Your task to perform on an android device: Go to Wikipedia Image 0: 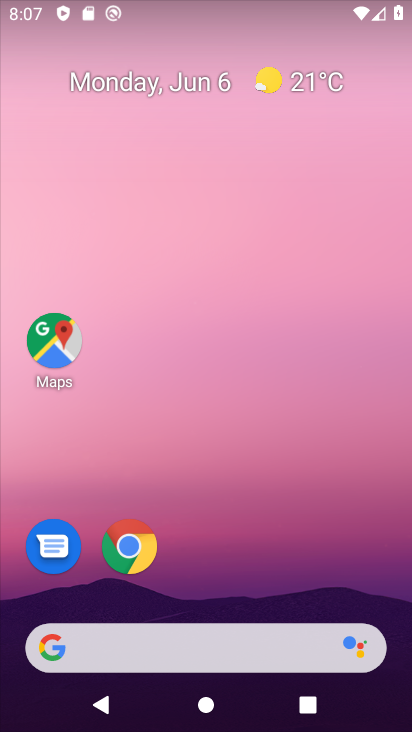
Step 0: drag from (332, 508) to (371, 0)
Your task to perform on an android device: Go to Wikipedia Image 1: 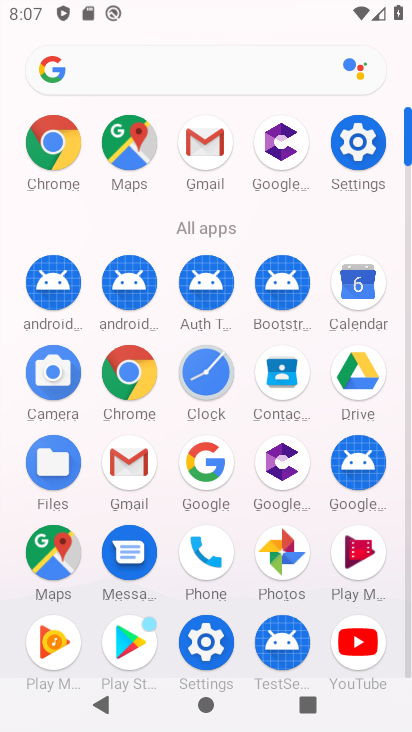
Step 1: click (52, 153)
Your task to perform on an android device: Go to Wikipedia Image 2: 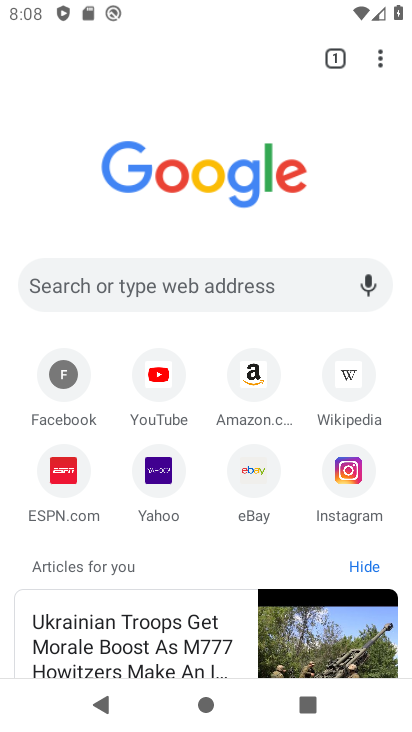
Step 2: click (350, 383)
Your task to perform on an android device: Go to Wikipedia Image 3: 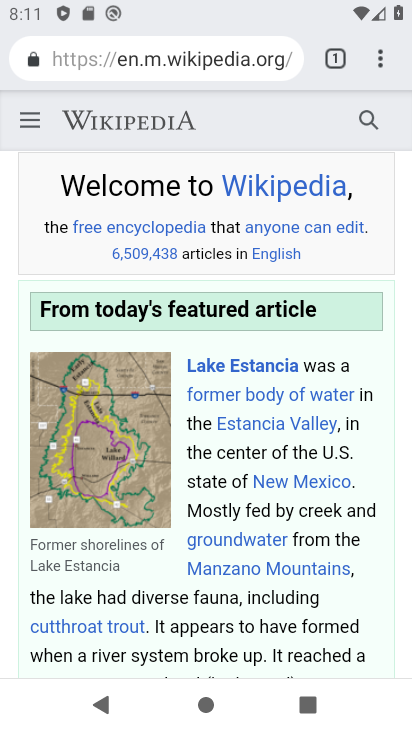
Step 3: task complete